Your task to perform on an android device: change the clock display to digital Image 0: 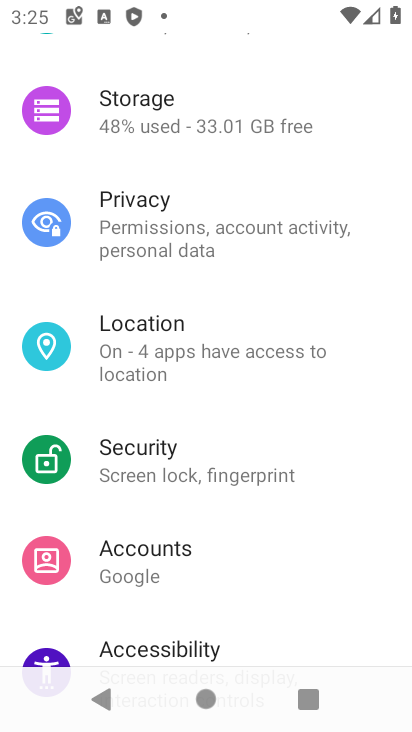
Step 0: press home button
Your task to perform on an android device: change the clock display to digital Image 1: 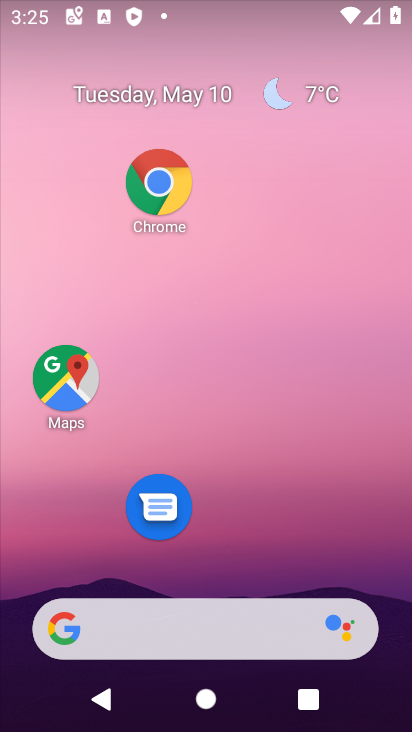
Step 1: drag from (294, 514) to (207, 137)
Your task to perform on an android device: change the clock display to digital Image 2: 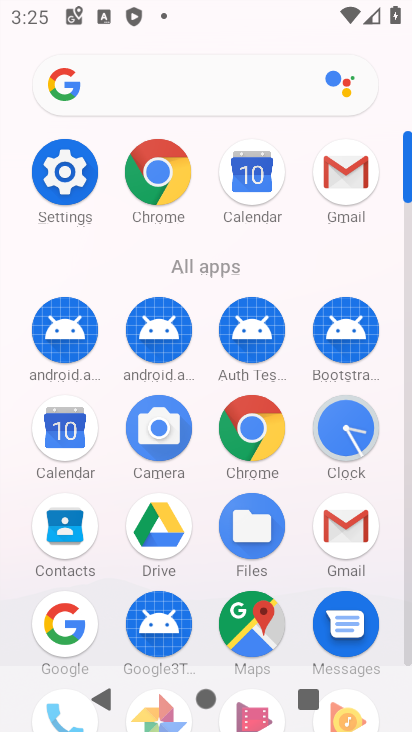
Step 2: click (80, 175)
Your task to perform on an android device: change the clock display to digital Image 3: 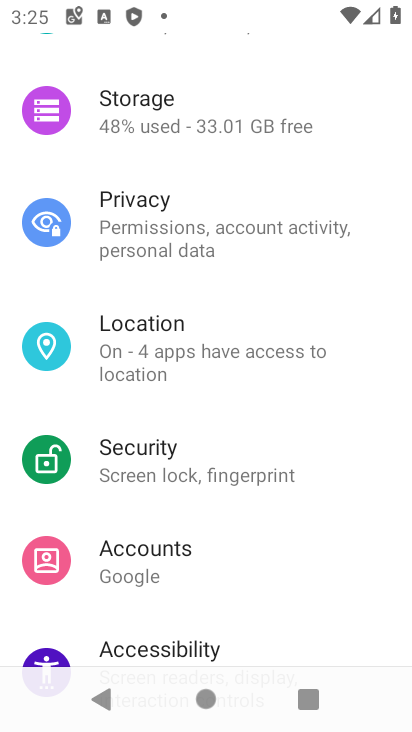
Step 3: drag from (255, 254) to (243, 663)
Your task to perform on an android device: change the clock display to digital Image 4: 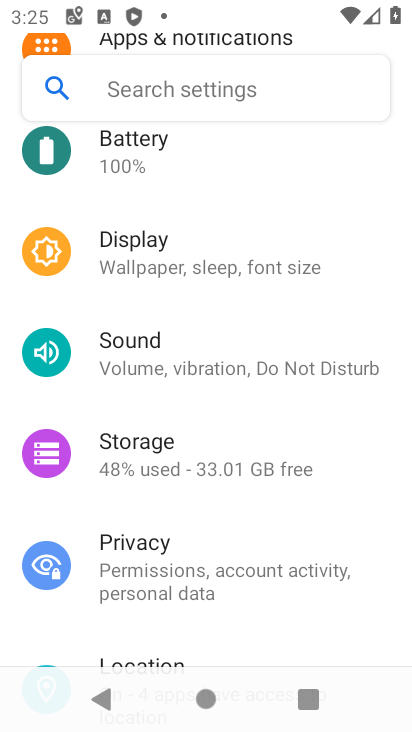
Step 4: drag from (217, 355) to (237, 661)
Your task to perform on an android device: change the clock display to digital Image 5: 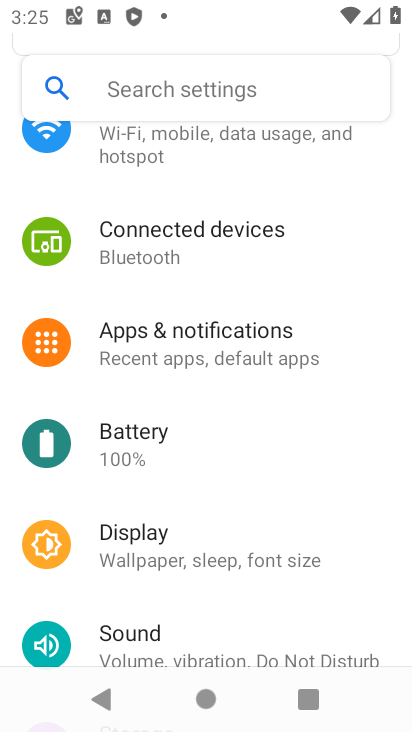
Step 5: drag from (259, 325) to (276, 618)
Your task to perform on an android device: change the clock display to digital Image 6: 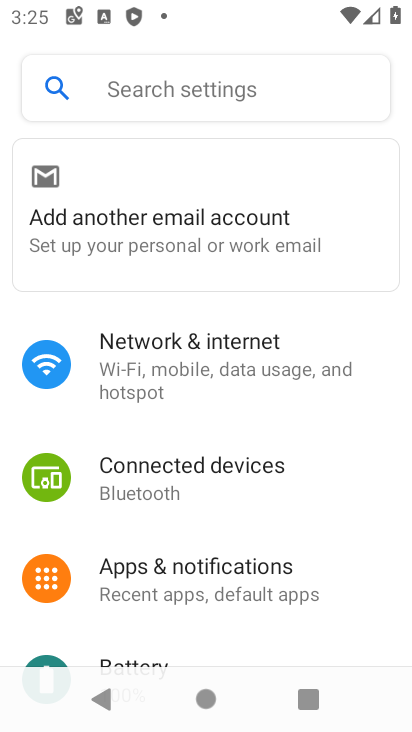
Step 6: press home button
Your task to perform on an android device: change the clock display to digital Image 7: 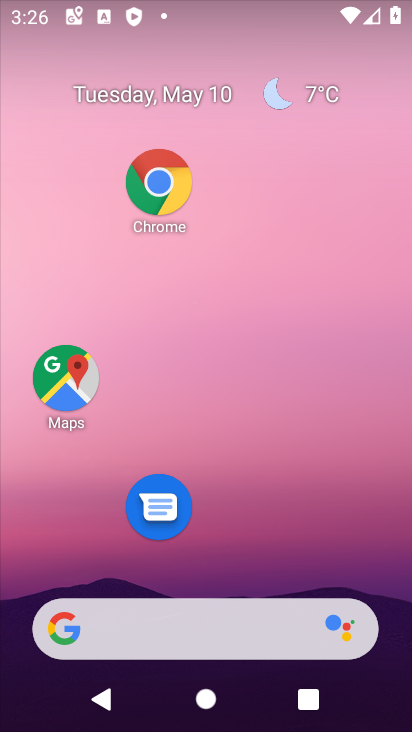
Step 7: drag from (273, 527) to (266, 95)
Your task to perform on an android device: change the clock display to digital Image 8: 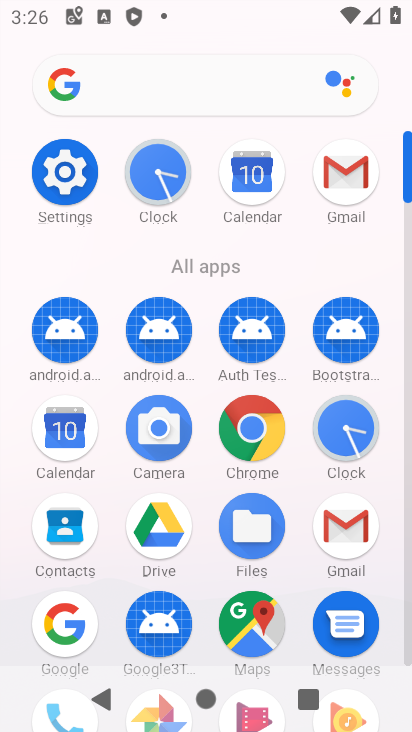
Step 8: click (169, 187)
Your task to perform on an android device: change the clock display to digital Image 9: 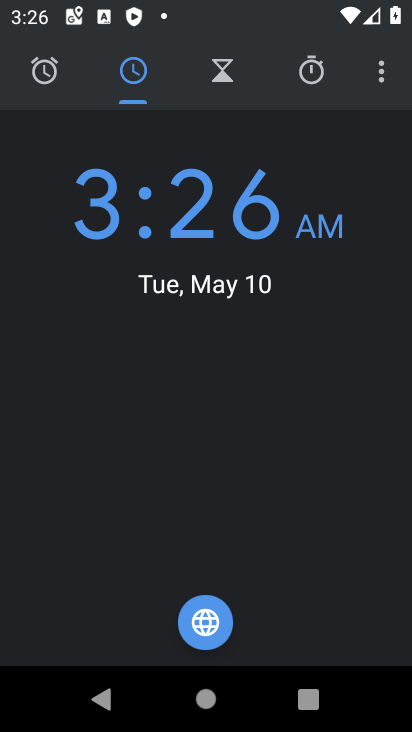
Step 9: click (384, 75)
Your task to perform on an android device: change the clock display to digital Image 10: 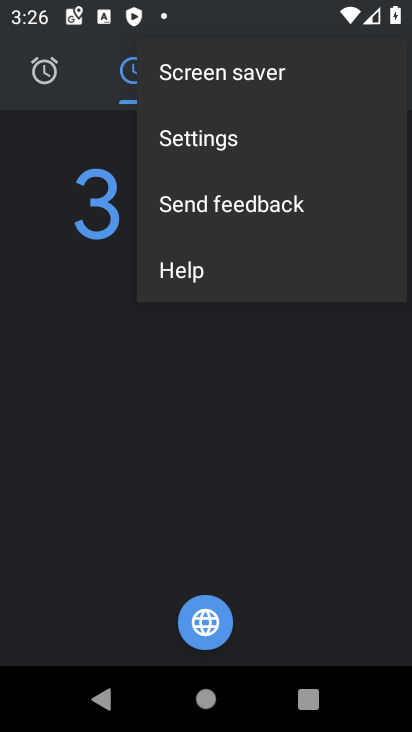
Step 10: click (304, 147)
Your task to perform on an android device: change the clock display to digital Image 11: 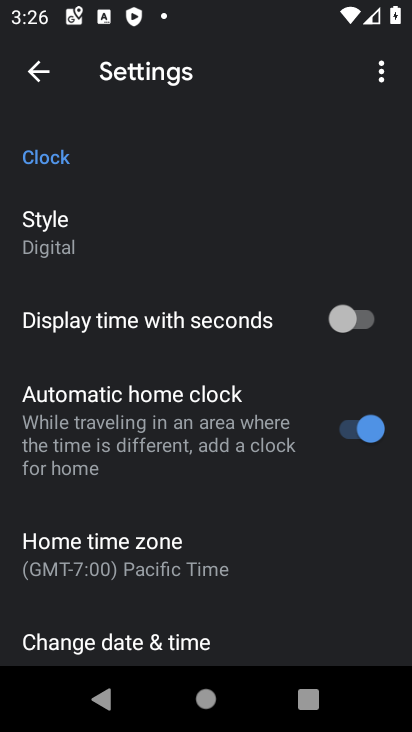
Step 11: task complete